Your task to perform on an android device: Check the weather Image 0: 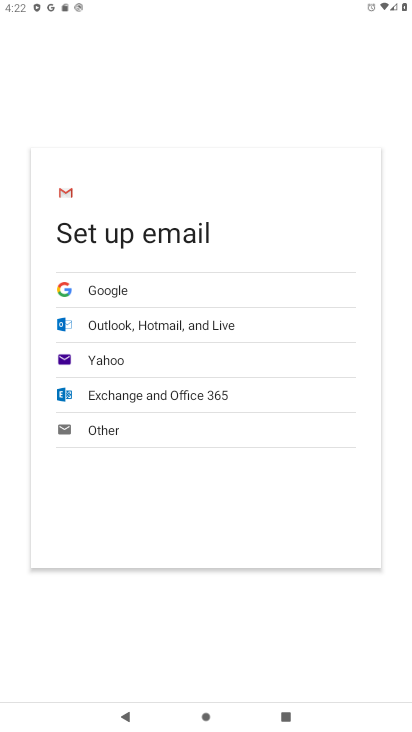
Step 0: press home button
Your task to perform on an android device: Check the weather Image 1: 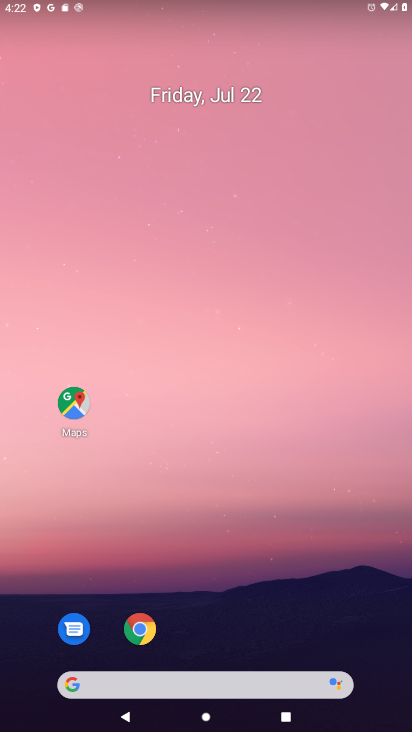
Step 1: drag from (261, 664) to (282, 227)
Your task to perform on an android device: Check the weather Image 2: 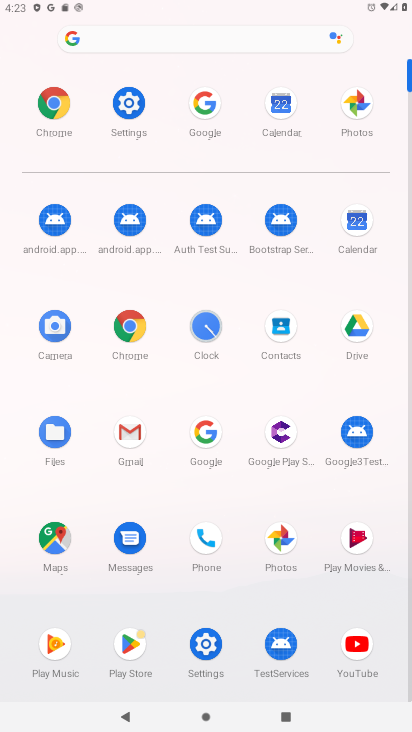
Step 2: click (222, 437)
Your task to perform on an android device: Check the weather Image 3: 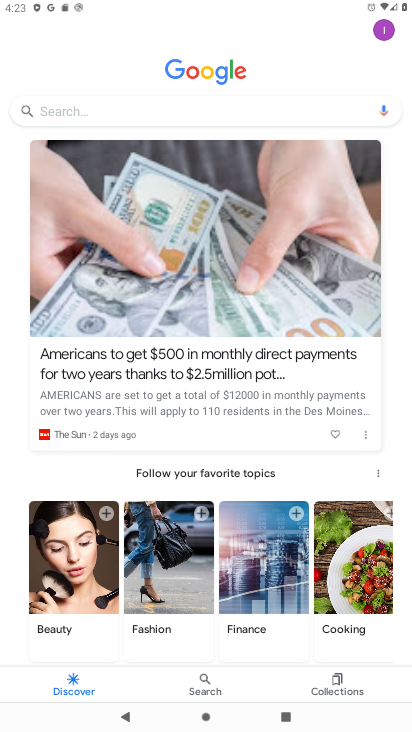
Step 3: click (245, 110)
Your task to perform on an android device: Check the weather Image 4: 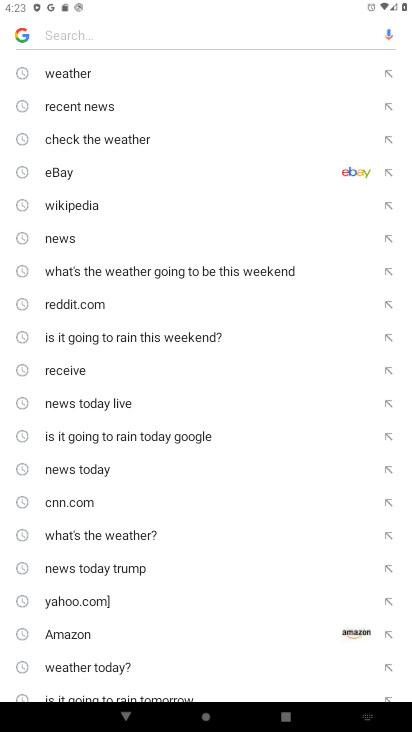
Step 4: click (123, 73)
Your task to perform on an android device: Check the weather Image 5: 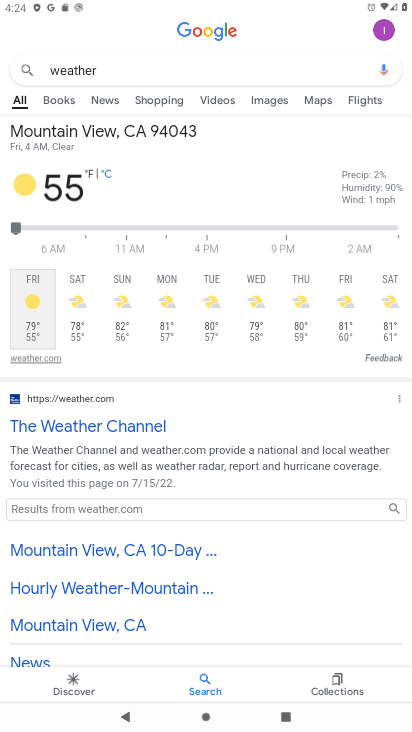
Step 5: task complete